Your task to perform on an android device: turn on translation in the chrome app Image 0: 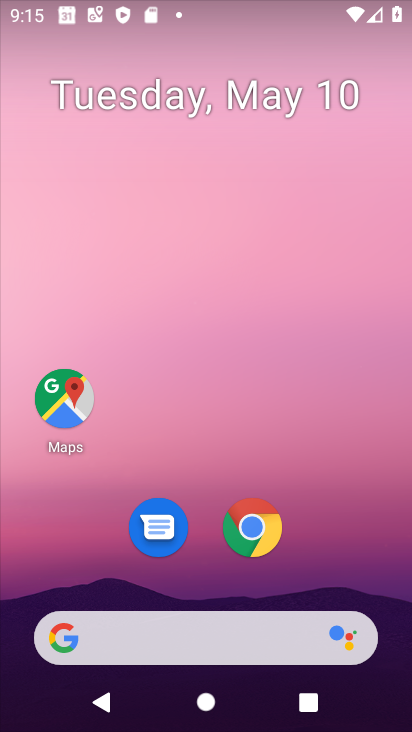
Step 0: click (263, 547)
Your task to perform on an android device: turn on translation in the chrome app Image 1: 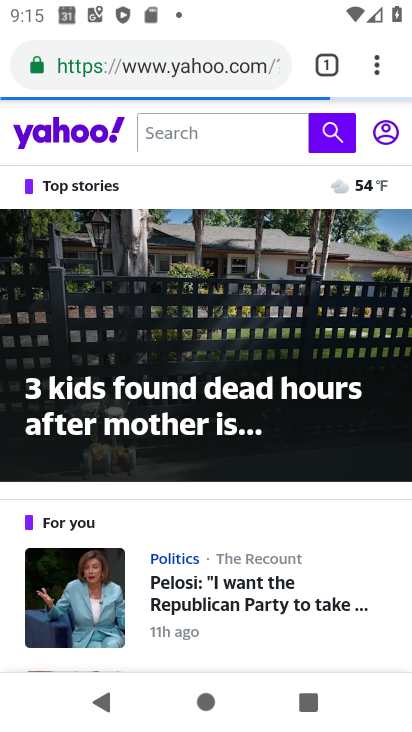
Step 1: click (376, 61)
Your task to perform on an android device: turn on translation in the chrome app Image 2: 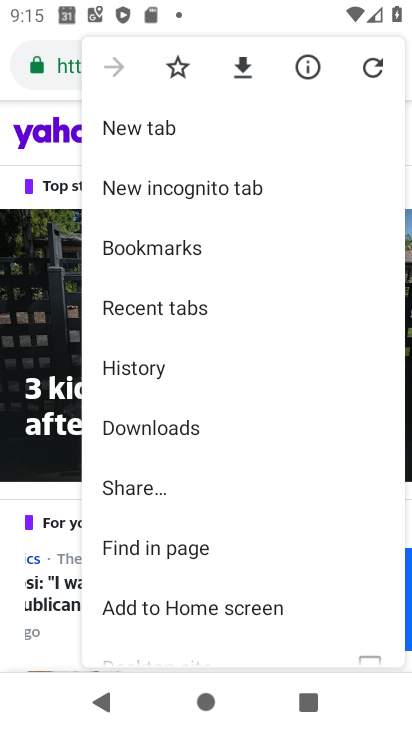
Step 2: drag from (199, 564) to (222, 313)
Your task to perform on an android device: turn on translation in the chrome app Image 3: 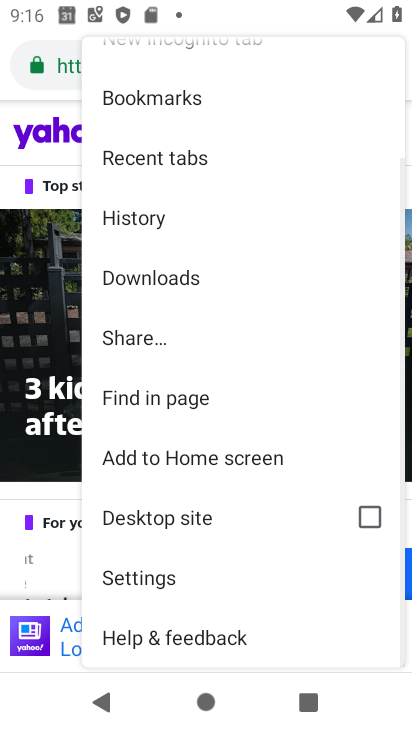
Step 3: click (176, 586)
Your task to perform on an android device: turn on translation in the chrome app Image 4: 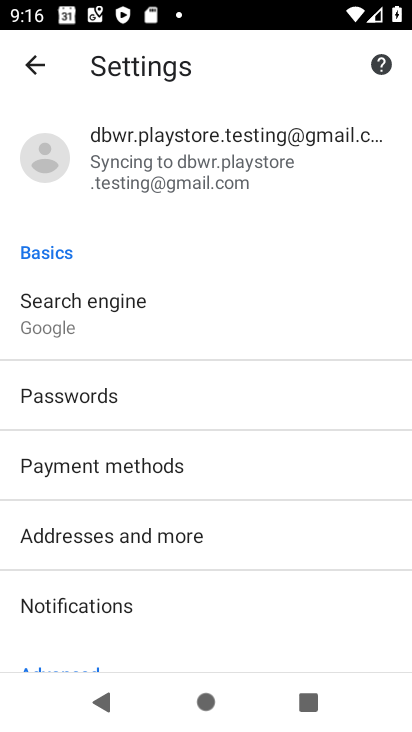
Step 4: drag from (185, 572) to (247, 321)
Your task to perform on an android device: turn on translation in the chrome app Image 5: 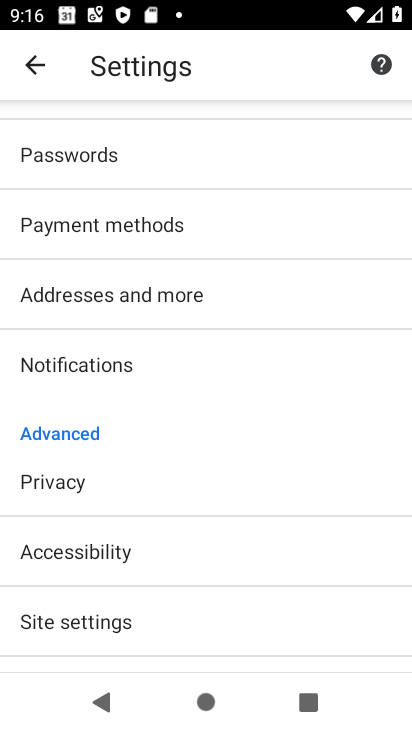
Step 5: click (221, 336)
Your task to perform on an android device: turn on translation in the chrome app Image 6: 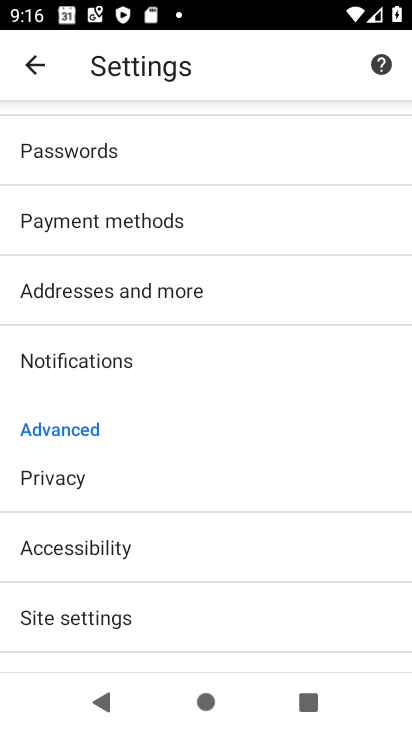
Step 6: drag from (151, 593) to (183, 366)
Your task to perform on an android device: turn on translation in the chrome app Image 7: 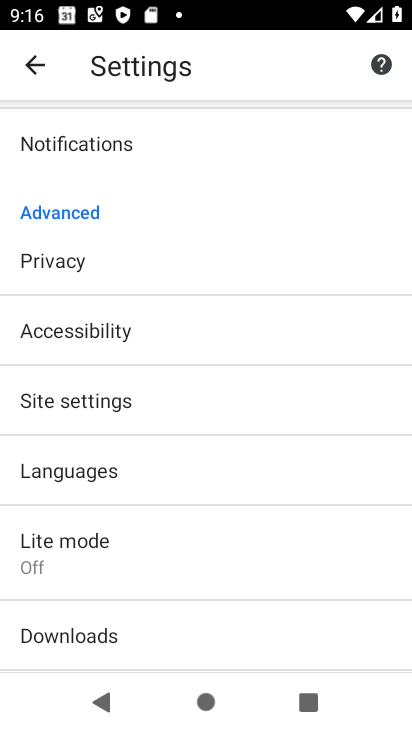
Step 7: drag from (84, 572) to (177, 371)
Your task to perform on an android device: turn on translation in the chrome app Image 8: 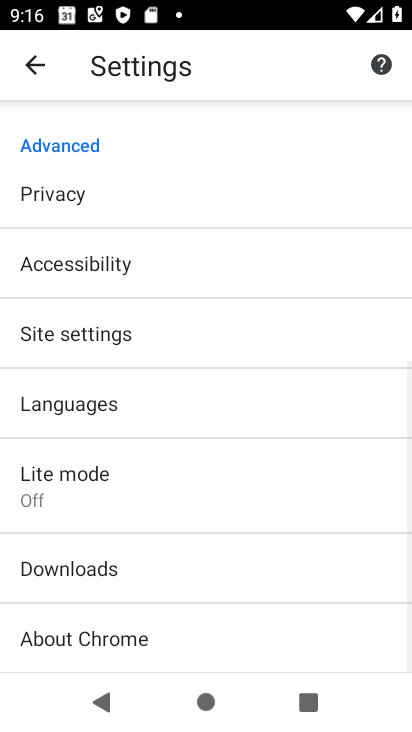
Step 8: click (123, 336)
Your task to perform on an android device: turn on translation in the chrome app Image 9: 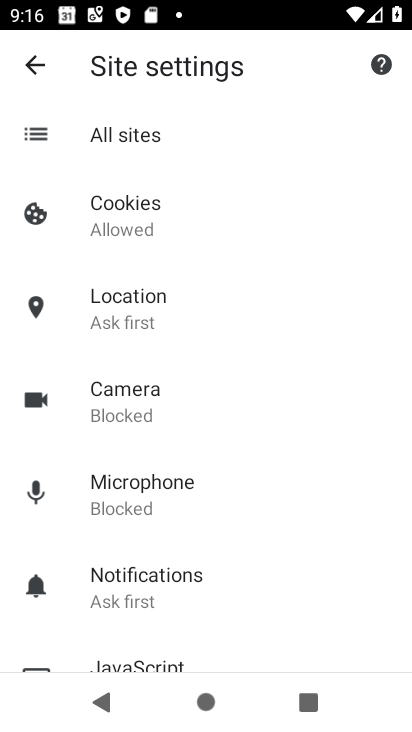
Step 9: click (120, 326)
Your task to perform on an android device: turn on translation in the chrome app Image 10: 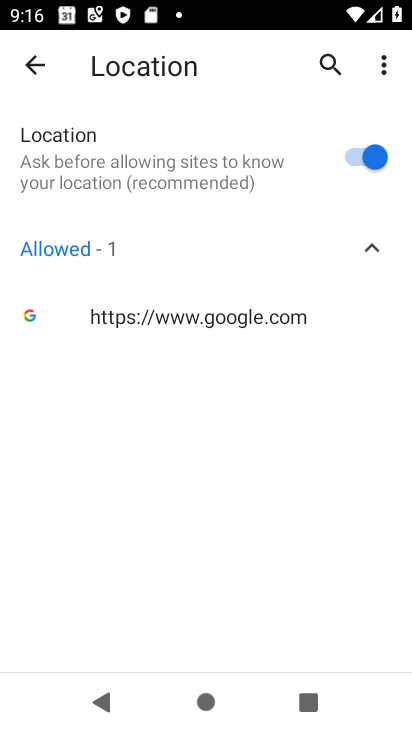
Step 10: task complete